Your task to perform on an android device: open app "Etsy: Buy & Sell Unique Items" Image 0: 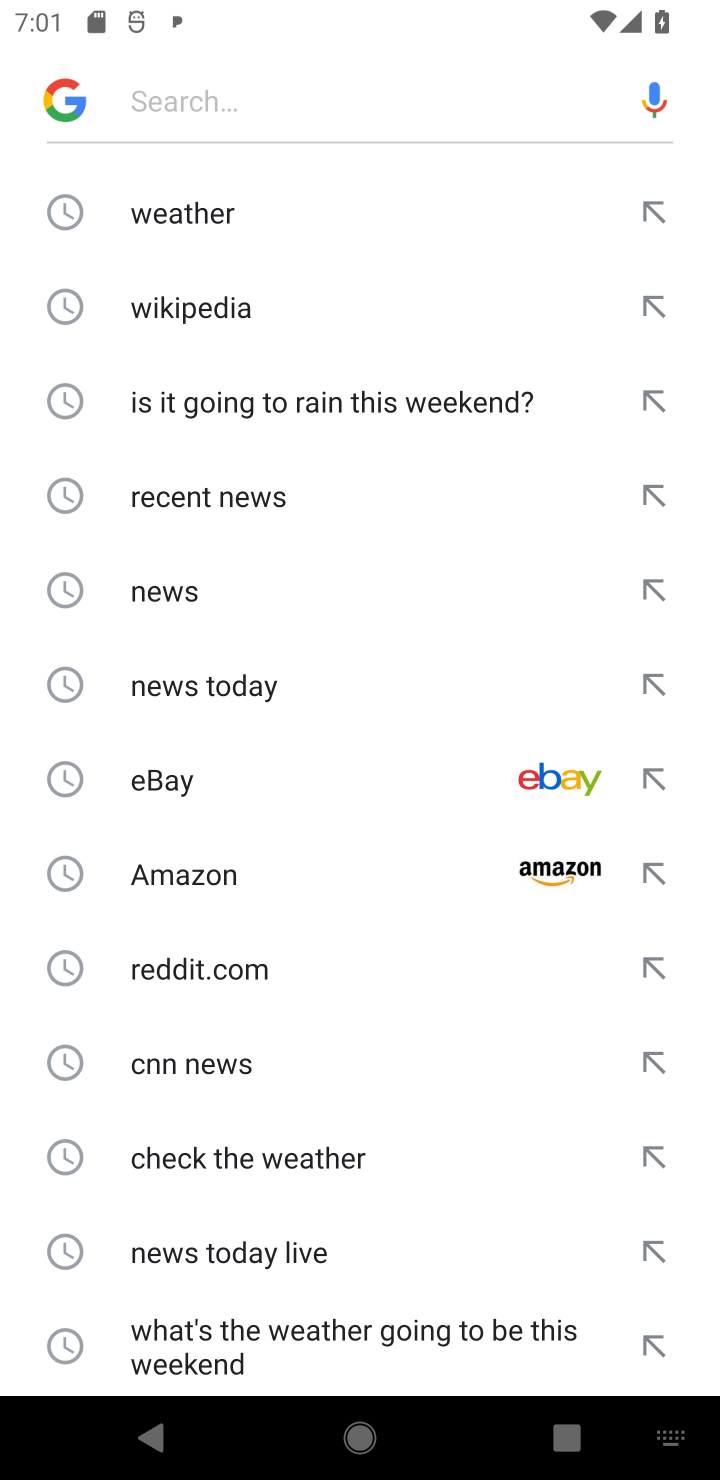
Step 0: press home button
Your task to perform on an android device: open app "Etsy: Buy & Sell Unique Items" Image 1: 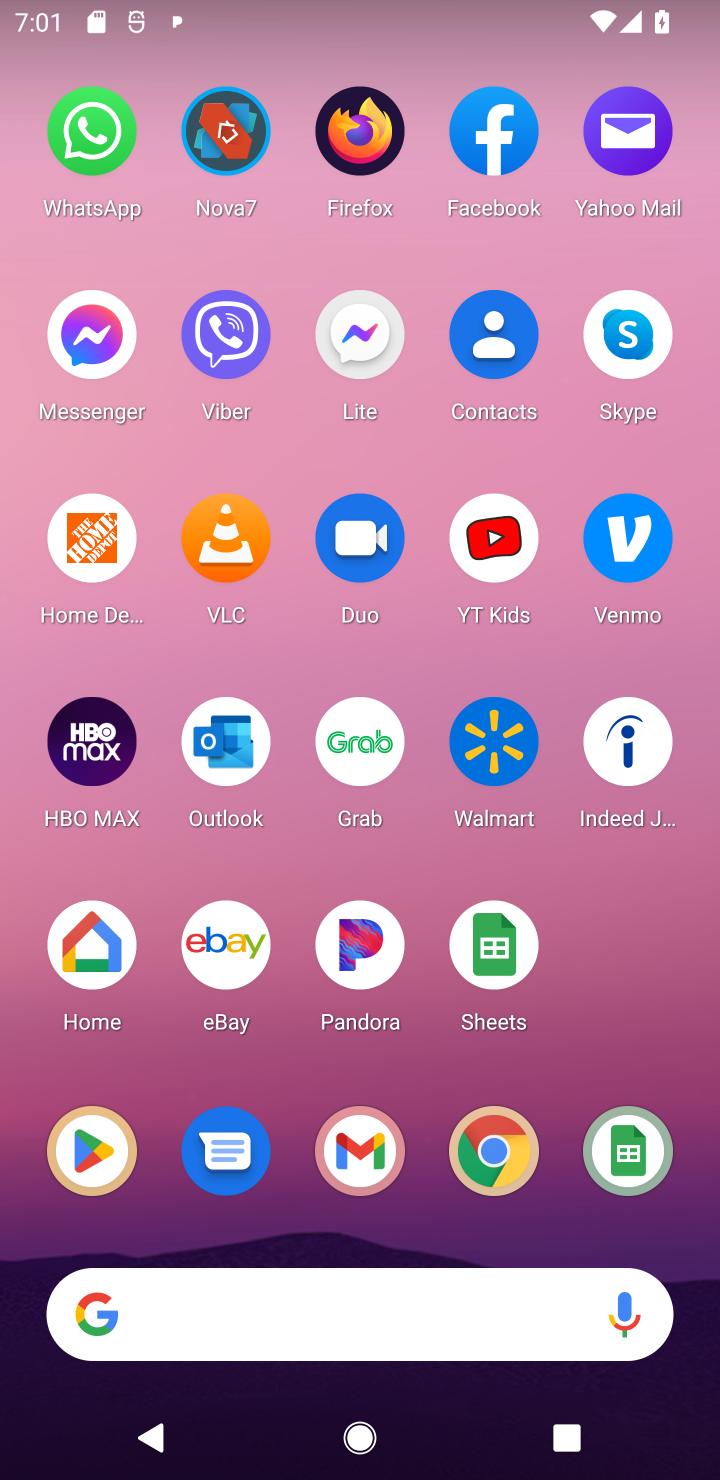
Step 1: click (94, 1155)
Your task to perform on an android device: open app "Etsy: Buy & Sell Unique Items" Image 2: 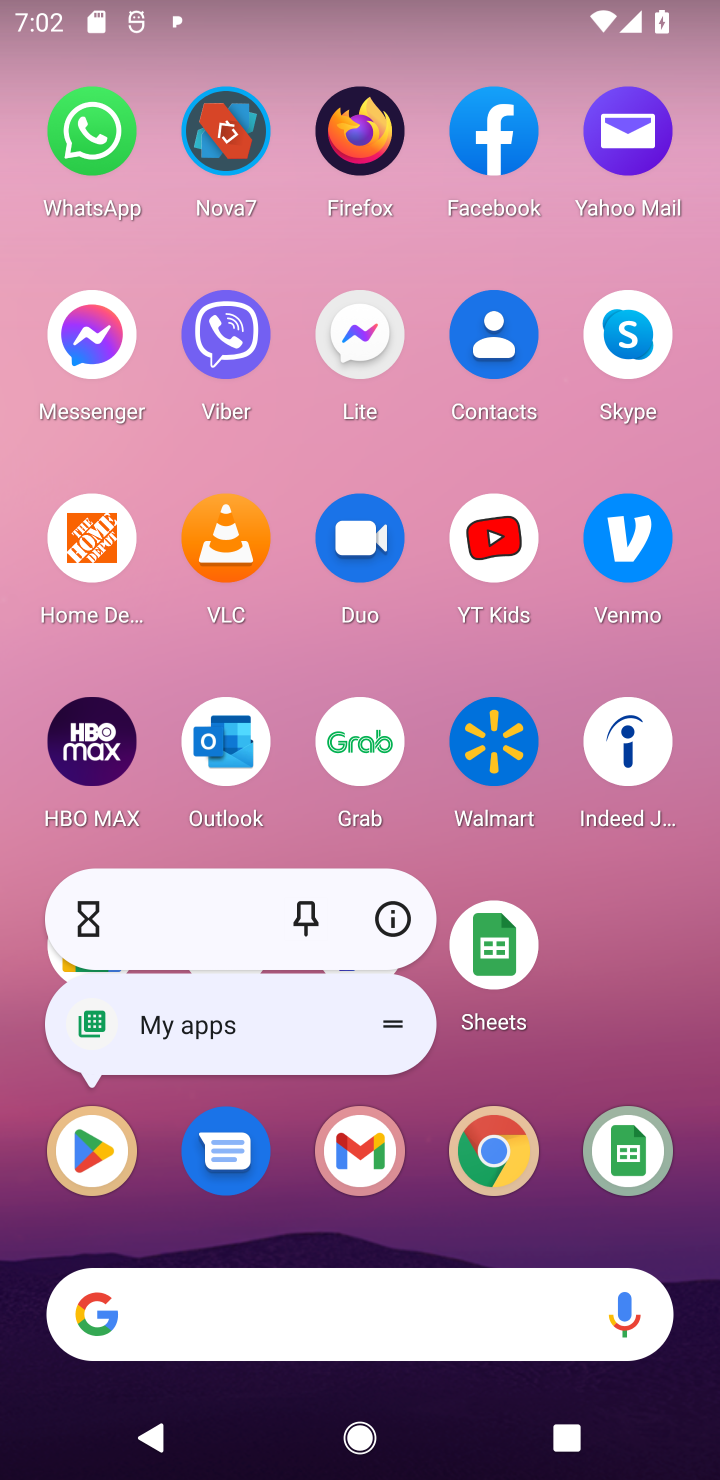
Step 2: click (89, 1166)
Your task to perform on an android device: open app "Etsy: Buy & Sell Unique Items" Image 3: 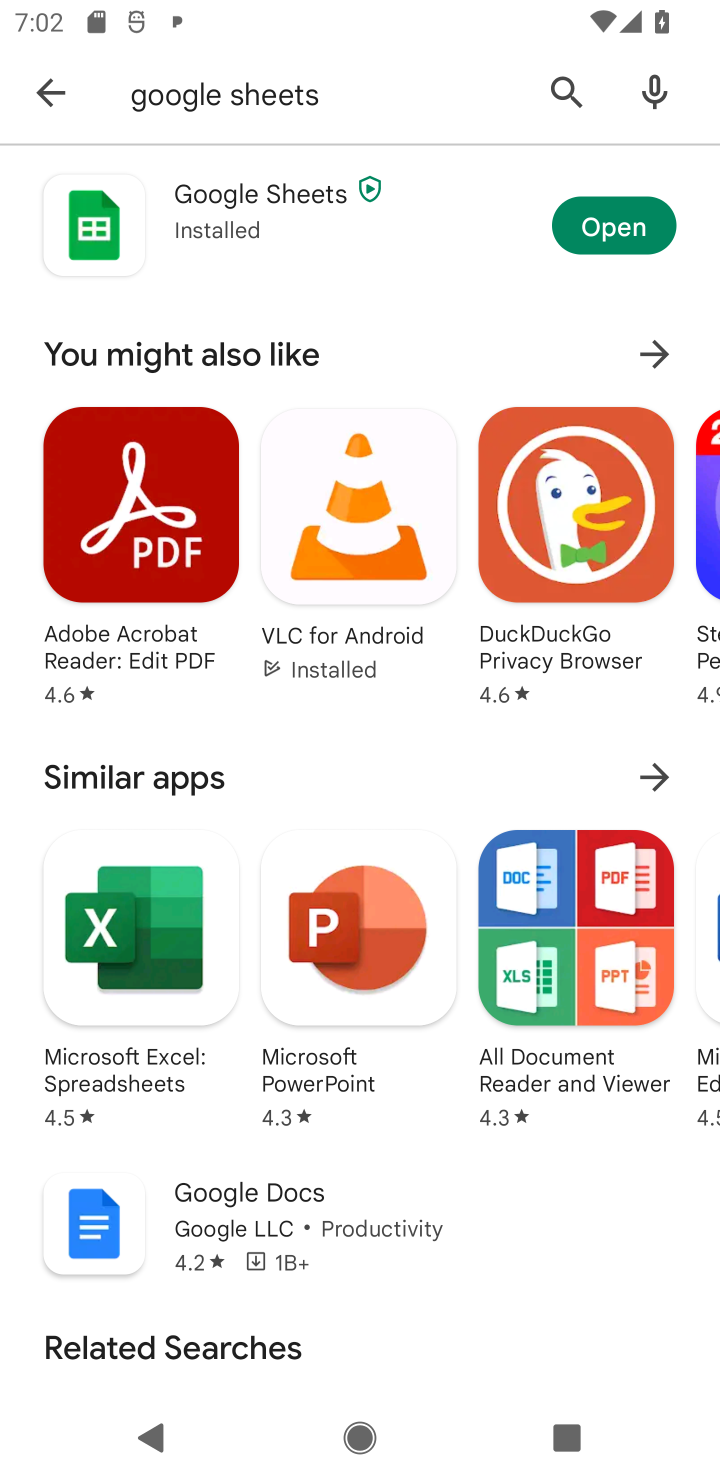
Step 3: click (571, 80)
Your task to perform on an android device: open app "Etsy: Buy & Sell Unique Items" Image 4: 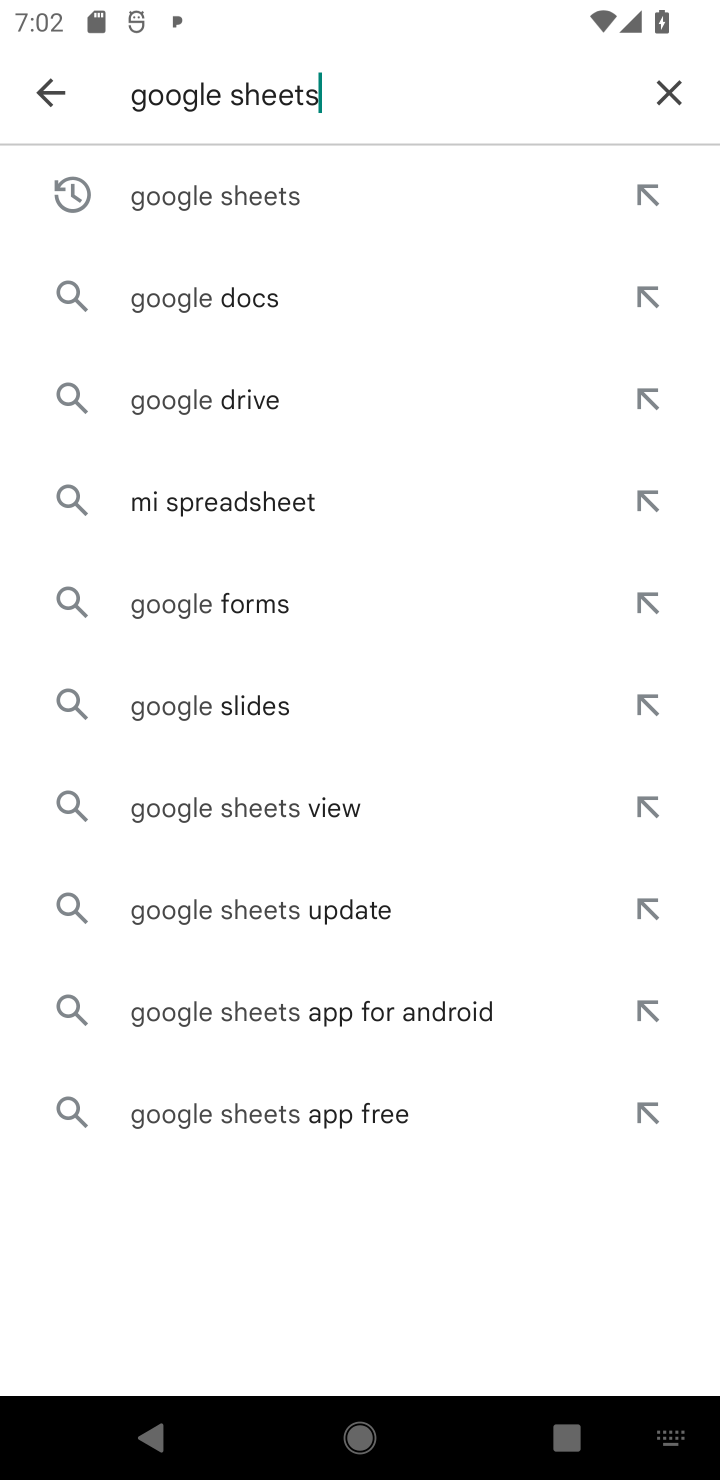
Step 4: click (654, 100)
Your task to perform on an android device: open app "Etsy: Buy & Sell Unique Items" Image 5: 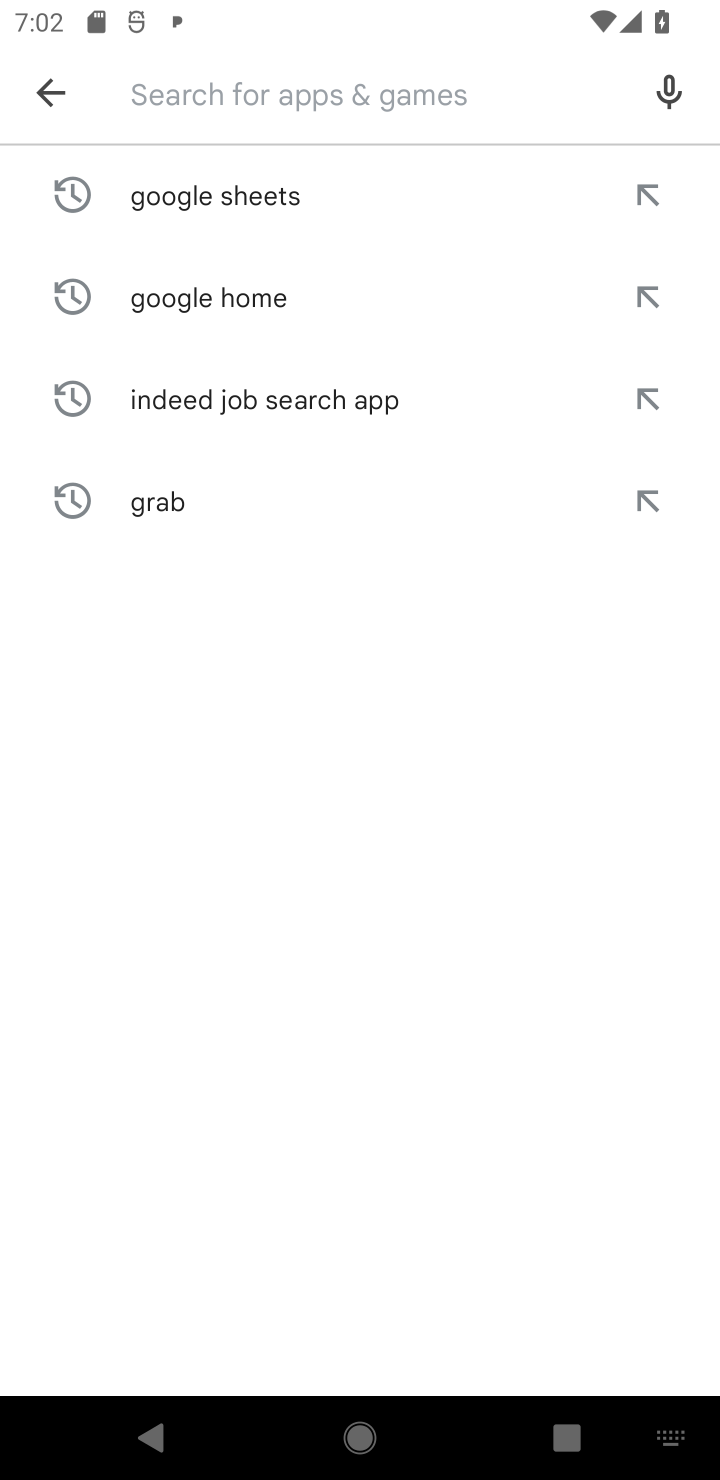
Step 5: type "Etsy: Buy & Sell Unique Items"
Your task to perform on an android device: open app "Etsy: Buy & Sell Unique Items" Image 6: 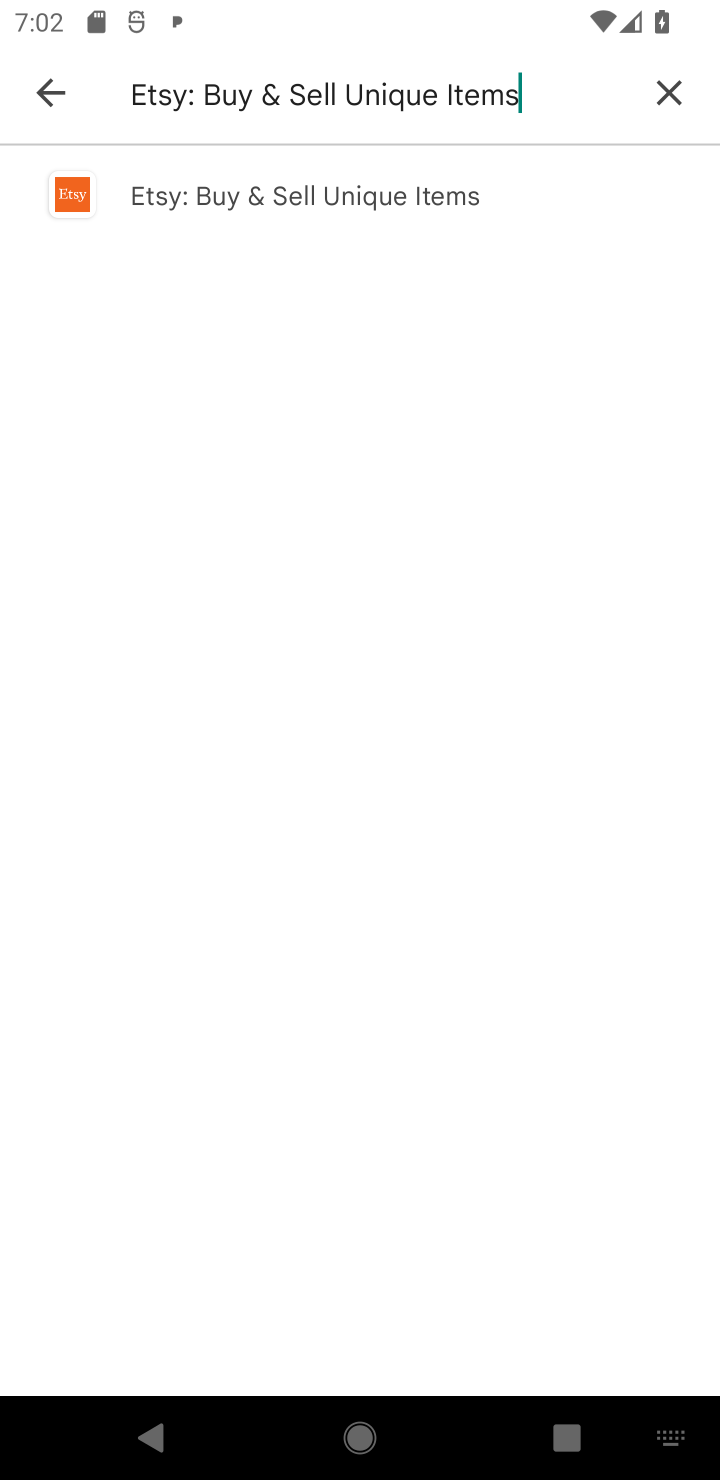
Step 6: click (239, 207)
Your task to perform on an android device: open app "Etsy: Buy & Sell Unique Items" Image 7: 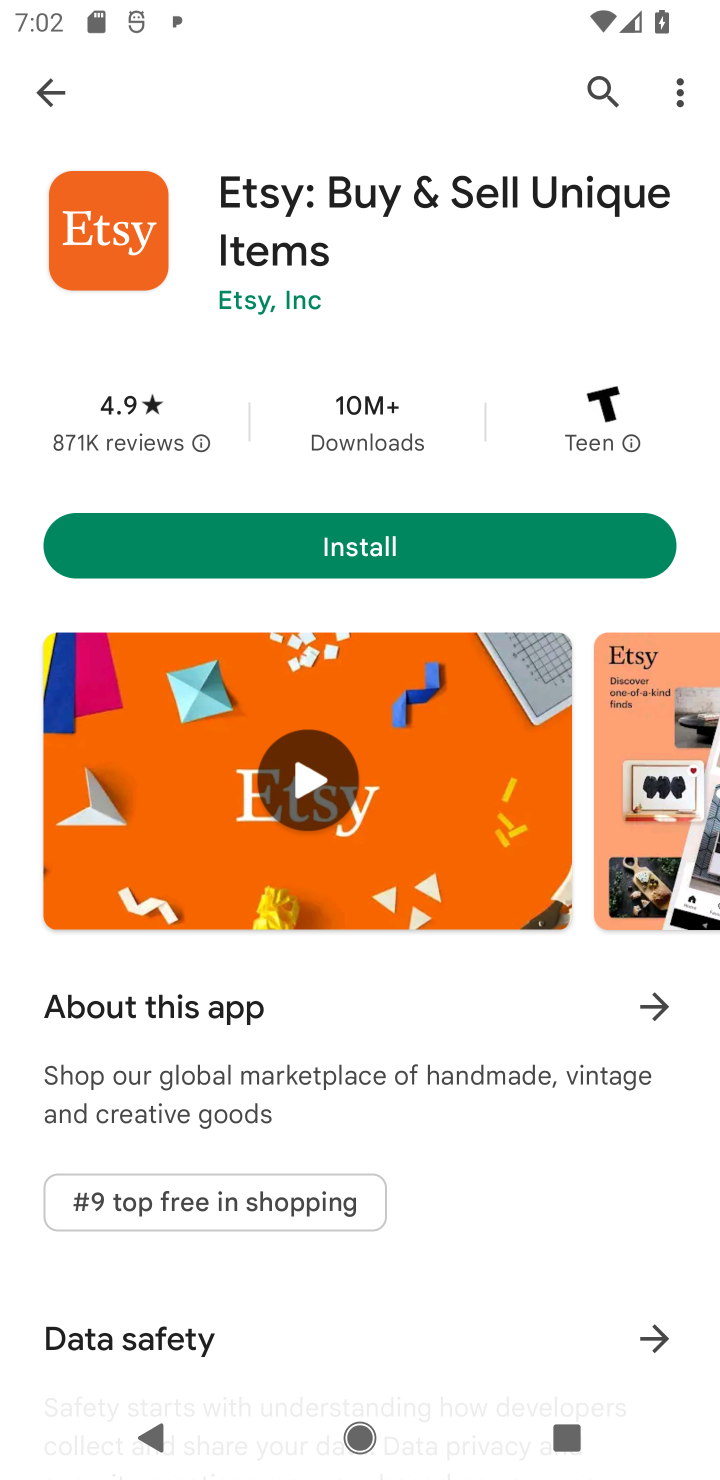
Step 7: task complete